Your task to perform on an android device: toggle priority inbox in the gmail app Image 0: 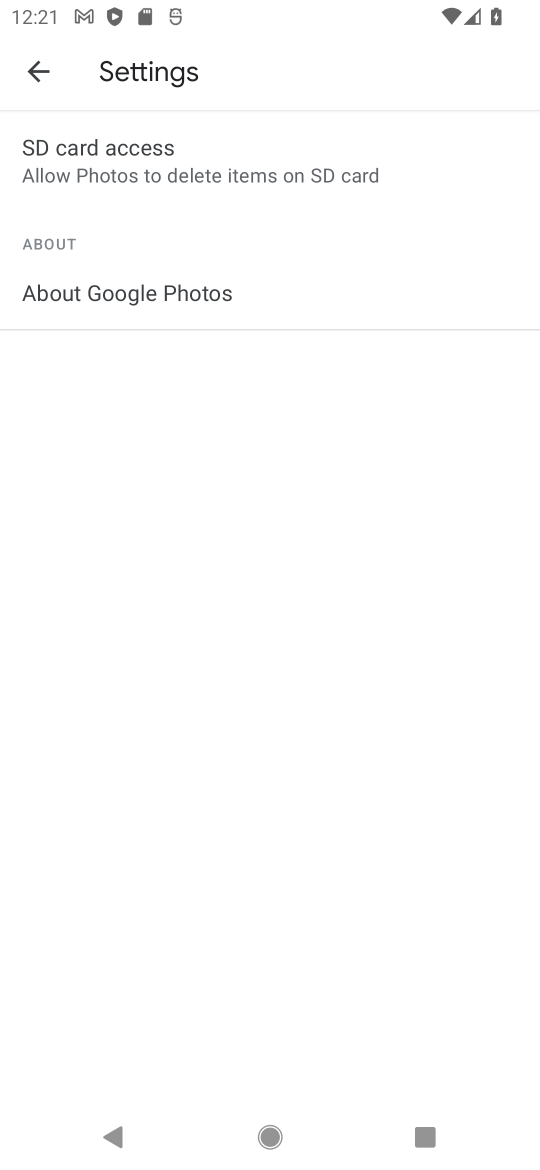
Step 0: press home button
Your task to perform on an android device: toggle priority inbox in the gmail app Image 1: 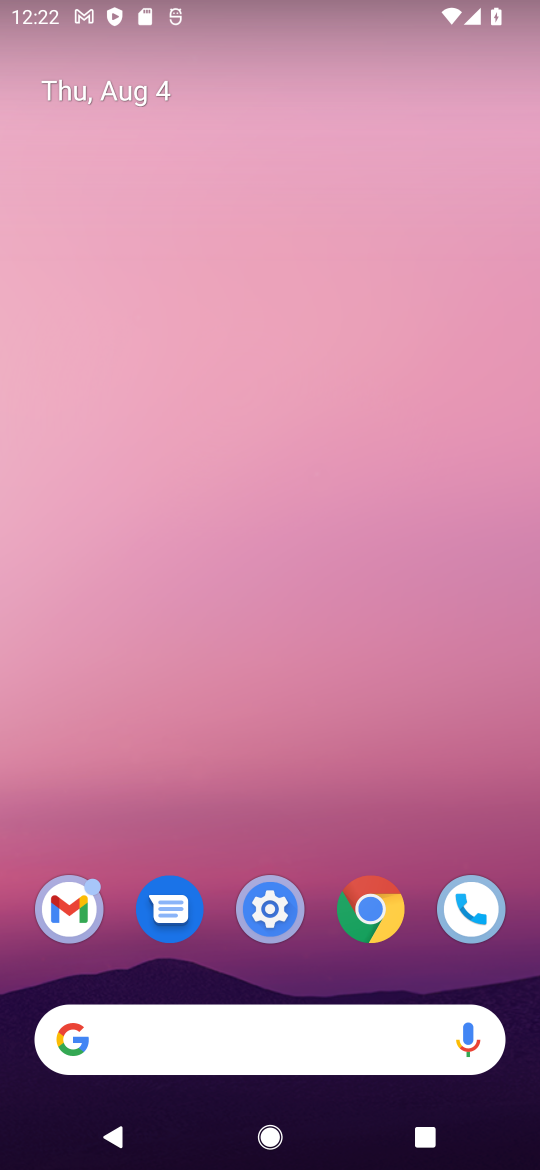
Step 1: click (82, 899)
Your task to perform on an android device: toggle priority inbox in the gmail app Image 2: 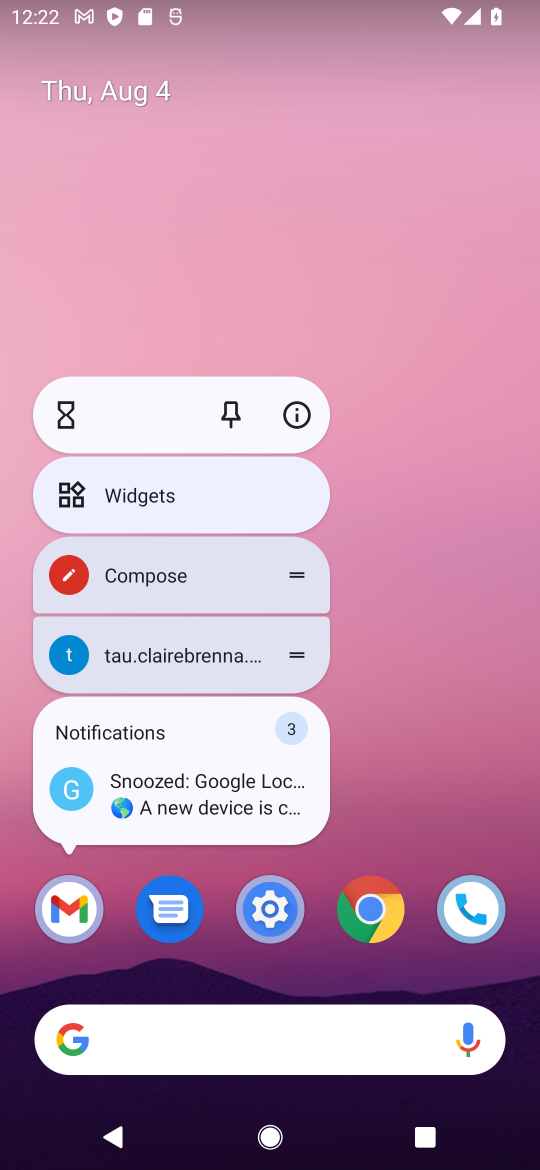
Step 2: click (82, 907)
Your task to perform on an android device: toggle priority inbox in the gmail app Image 3: 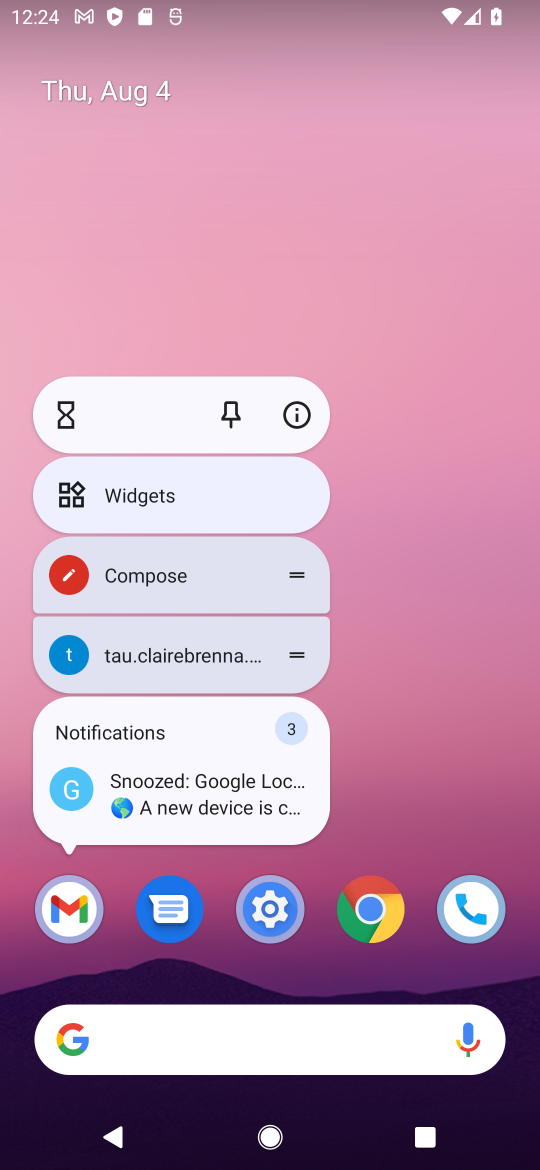
Step 3: click (82, 914)
Your task to perform on an android device: toggle priority inbox in the gmail app Image 4: 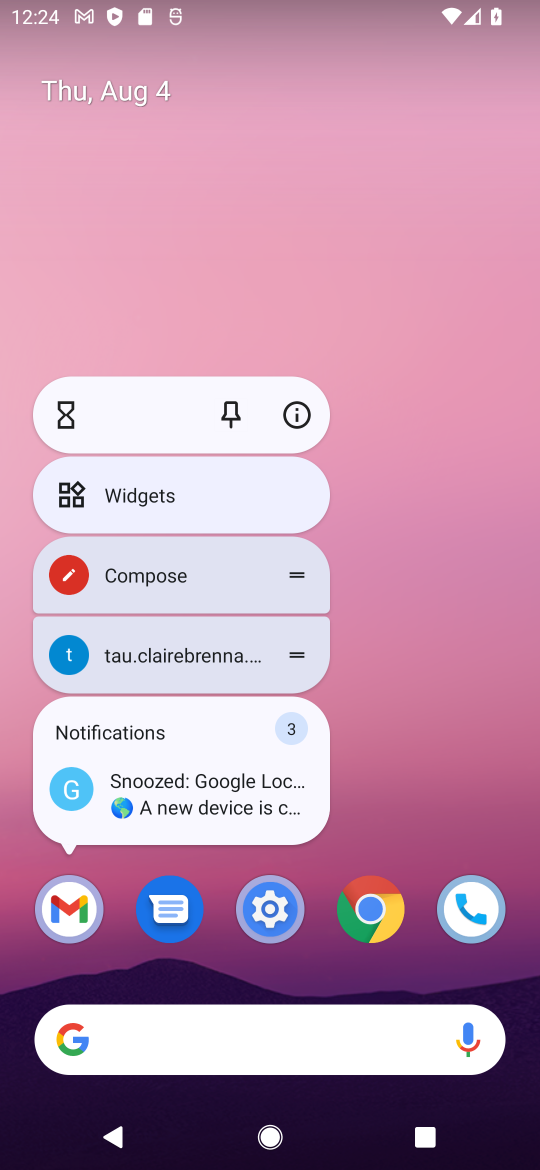
Step 4: click (82, 914)
Your task to perform on an android device: toggle priority inbox in the gmail app Image 5: 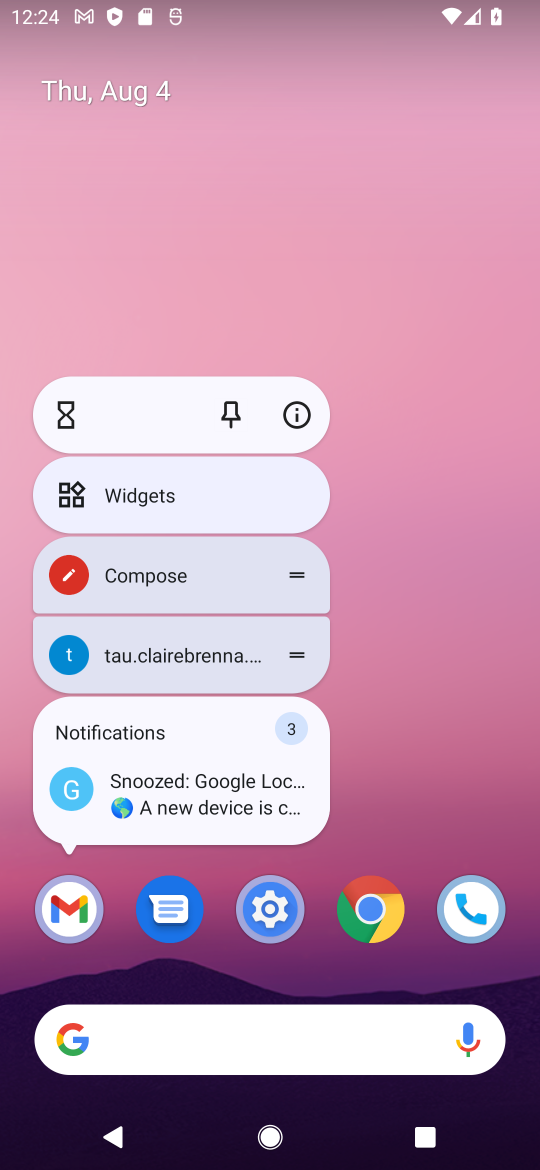
Step 5: click (82, 914)
Your task to perform on an android device: toggle priority inbox in the gmail app Image 6: 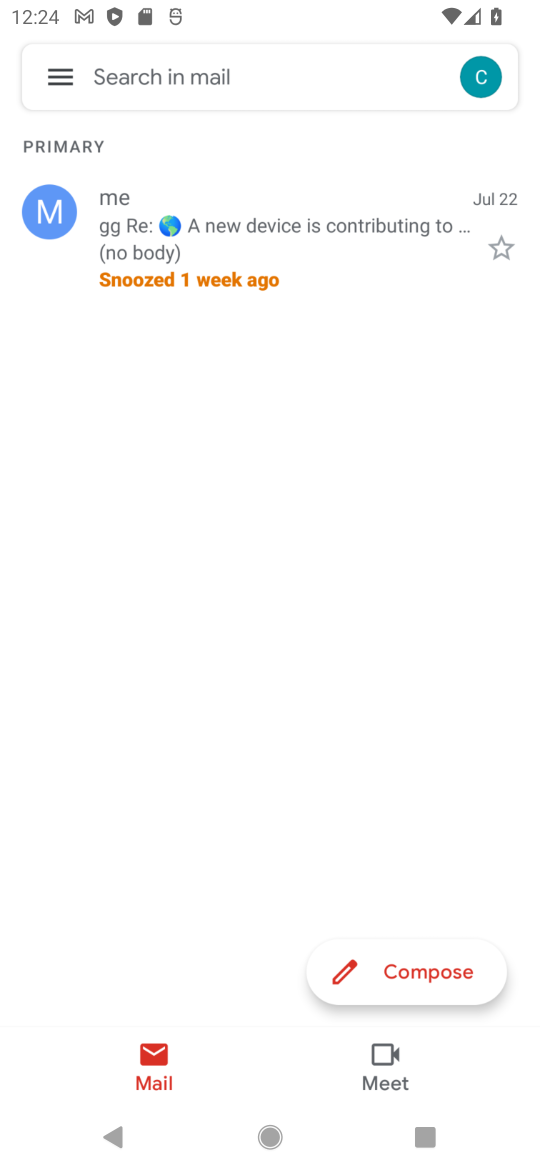
Step 6: click (82, 914)
Your task to perform on an android device: toggle priority inbox in the gmail app Image 7: 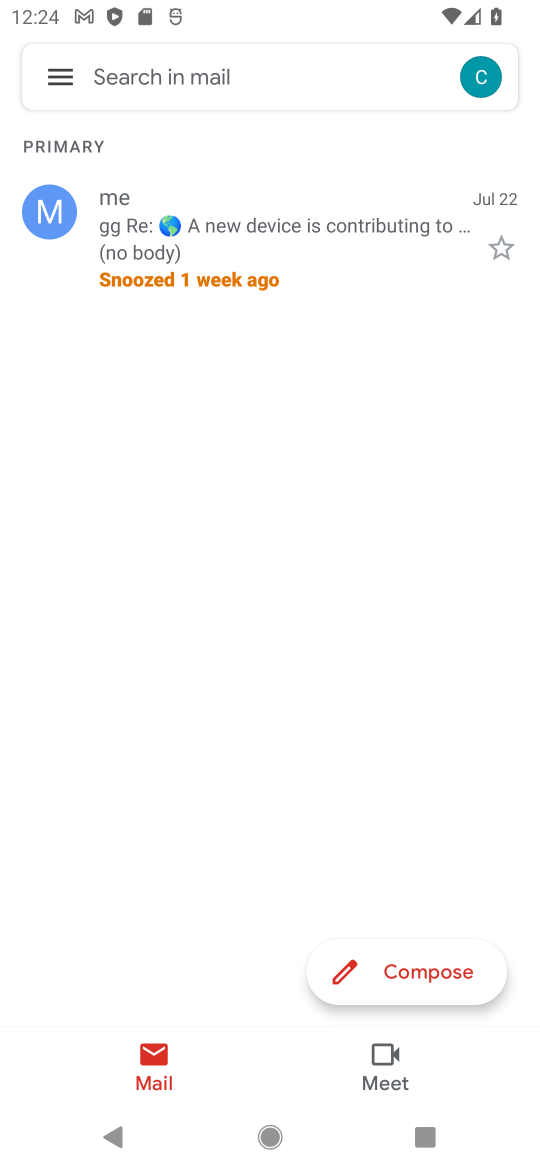
Step 7: click (65, 79)
Your task to perform on an android device: toggle priority inbox in the gmail app Image 8: 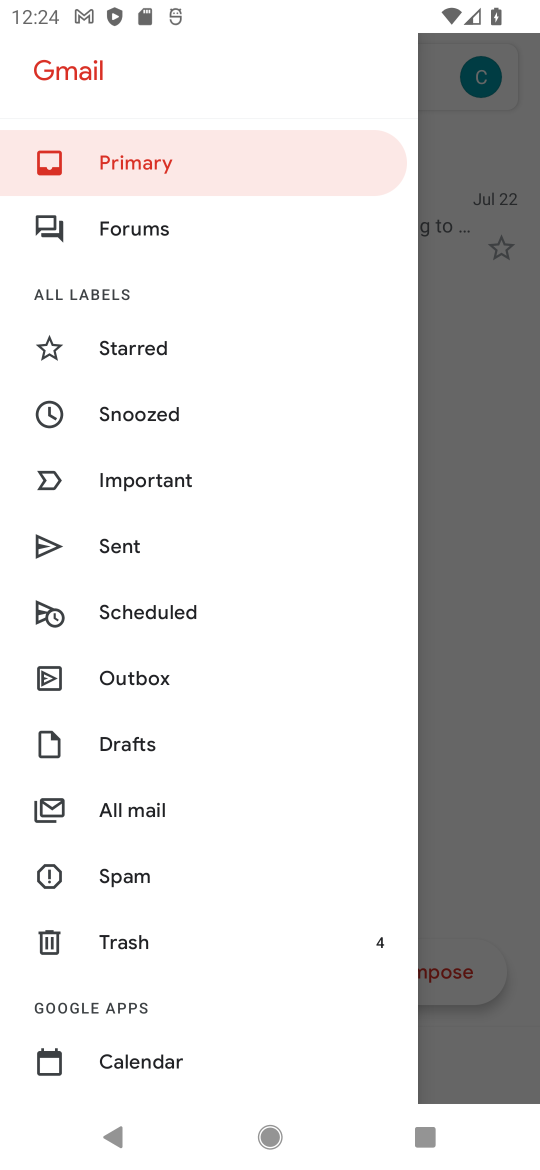
Step 8: drag from (258, 434) to (343, 0)
Your task to perform on an android device: toggle priority inbox in the gmail app Image 9: 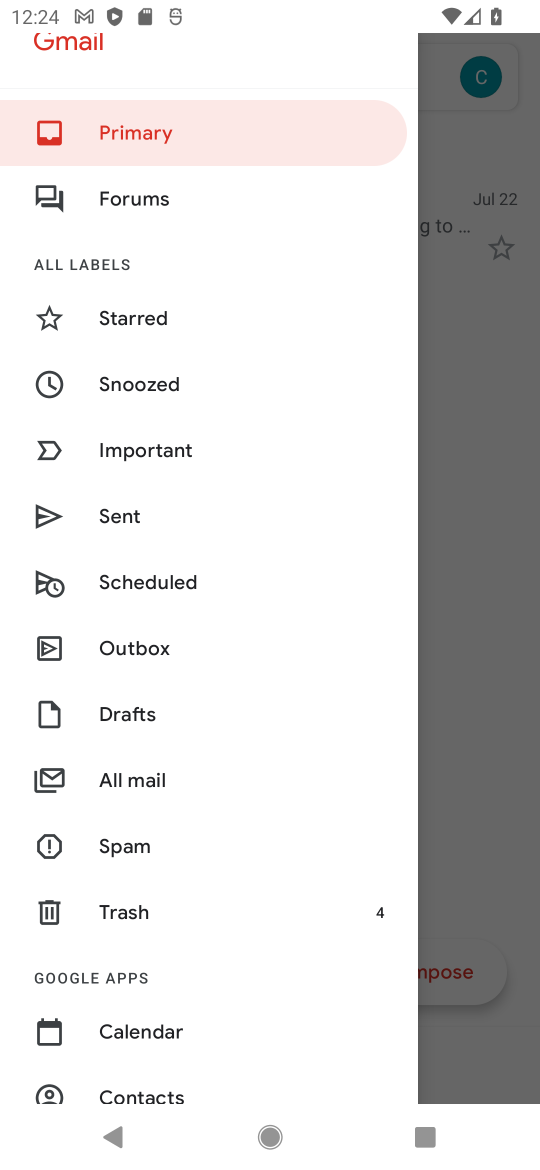
Step 9: drag from (246, 1058) to (215, 111)
Your task to perform on an android device: toggle priority inbox in the gmail app Image 10: 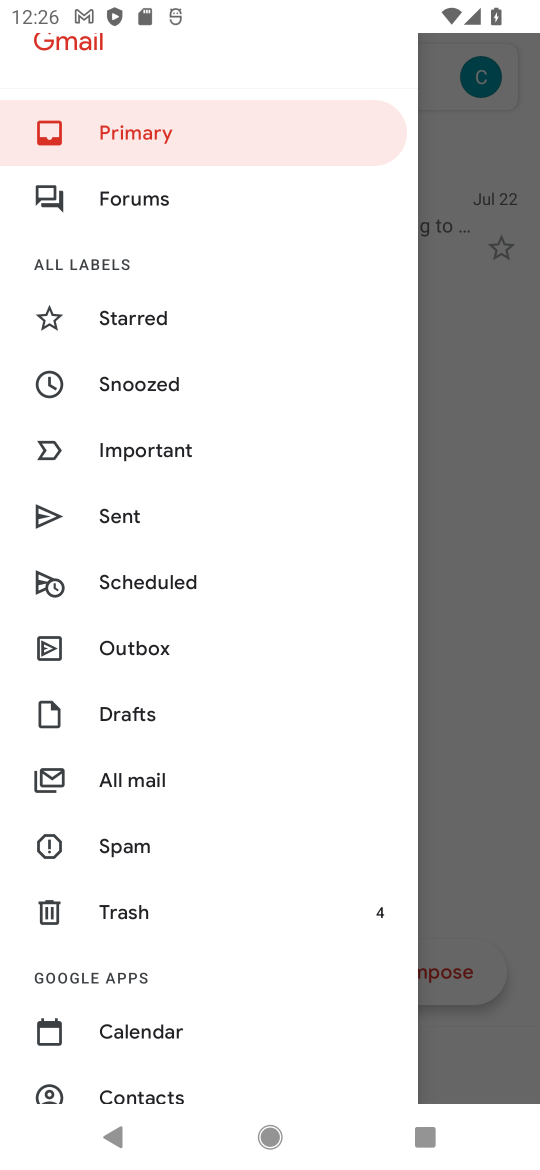
Step 10: drag from (142, 898) to (539, 427)
Your task to perform on an android device: toggle priority inbox in the gmail app Image 11: 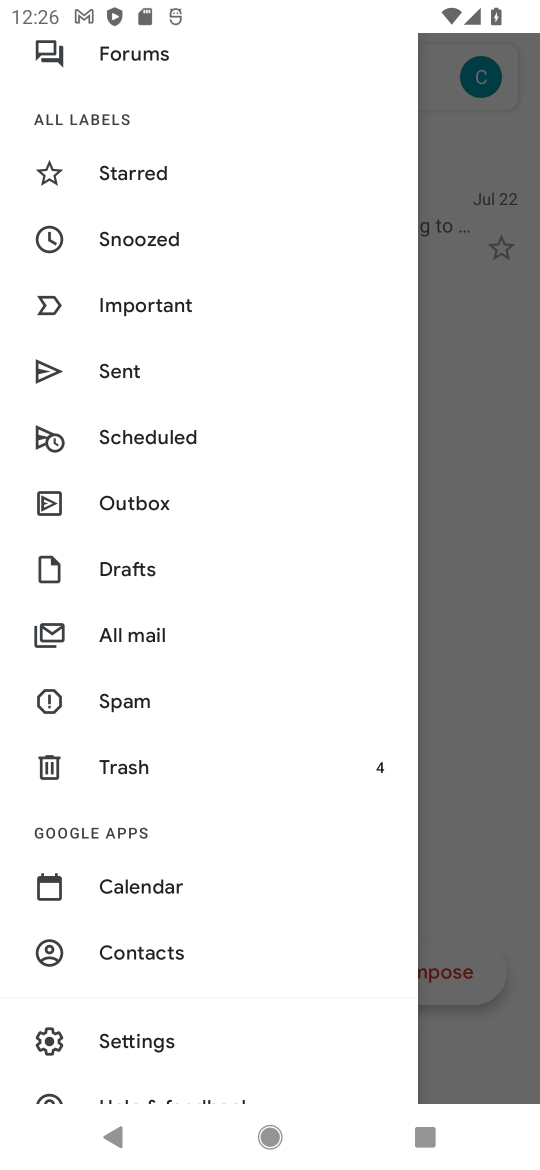
Step 11: click (174, 1000)
Your task to perform on an android device: toggle priority inbox in the gmail app Image 12: 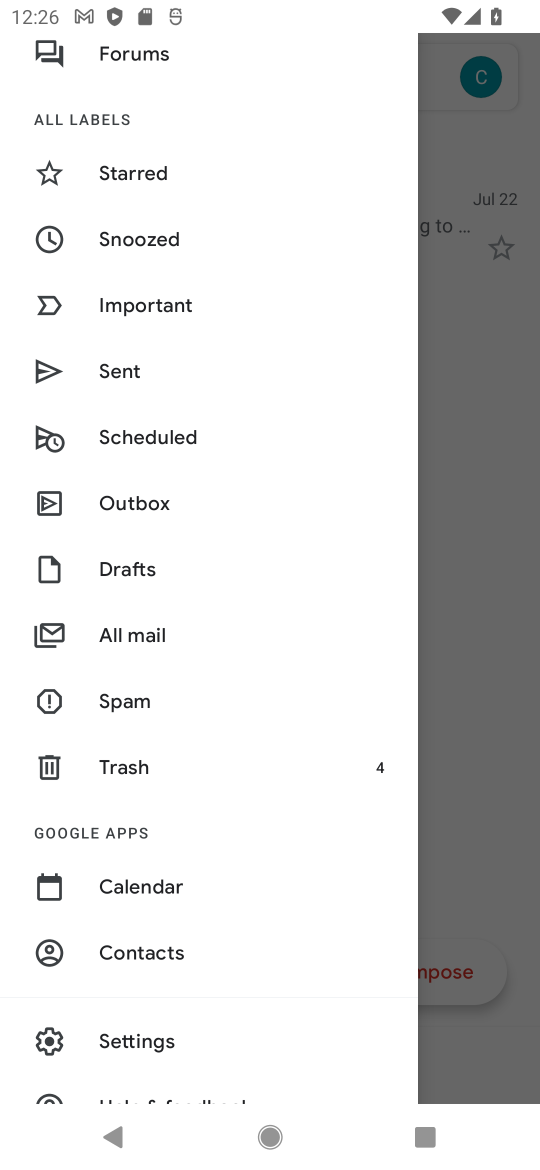
Step 12: click (174, 1043)
Your task to perform on an android device: toggle priority inbox in the gmail app Image 13: 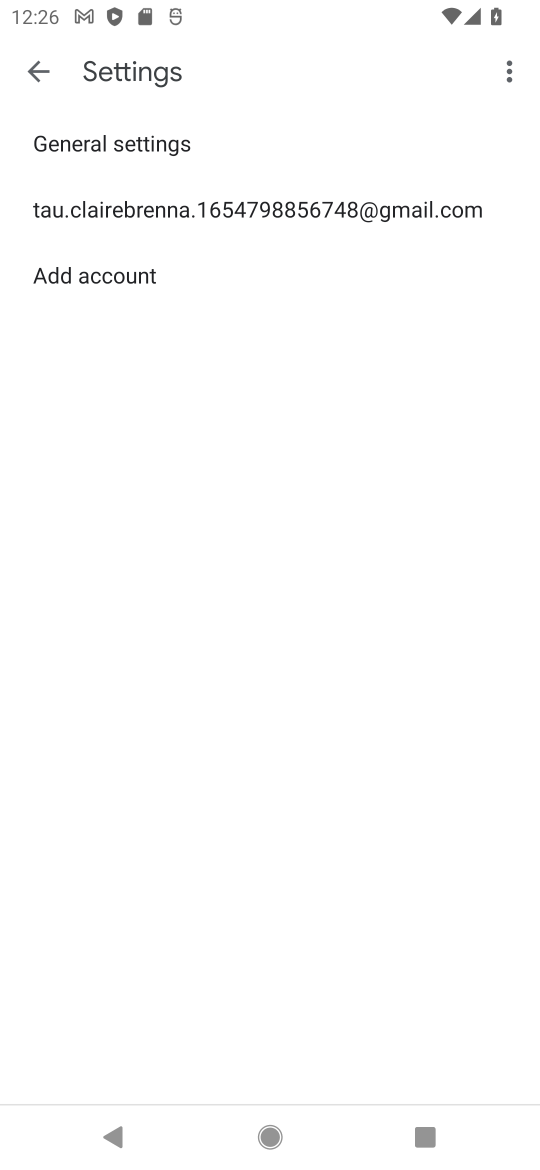
Step 13: click (155, 198)
Your task to perform on an android device: toggle priority inbox in the gmail app Image 14: 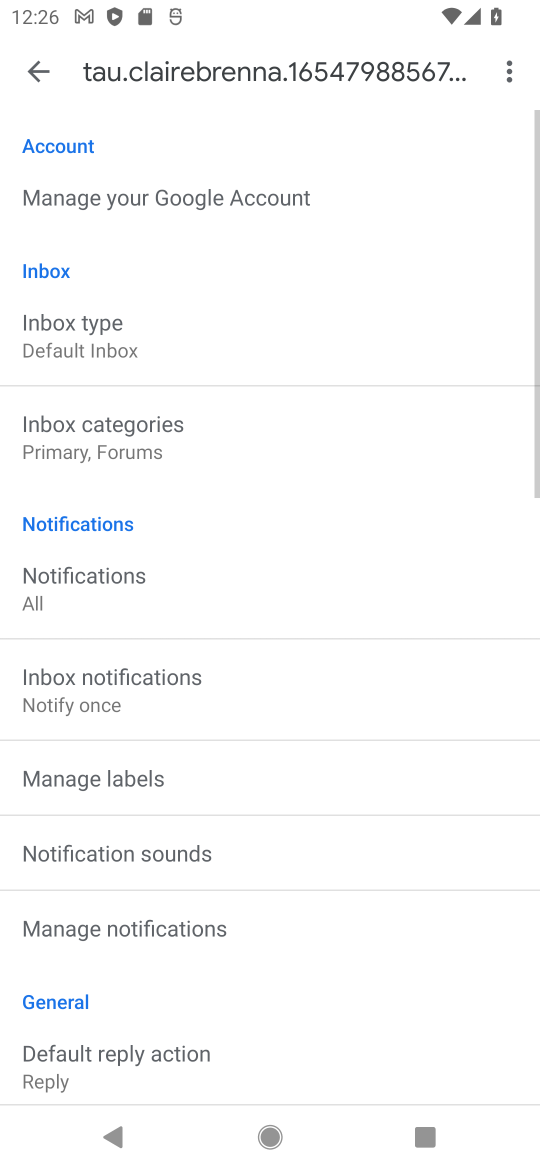
Step 14: click (115, 328)
Your task to perform on an android device: toggle priority inbox in the gmail app Image 15: 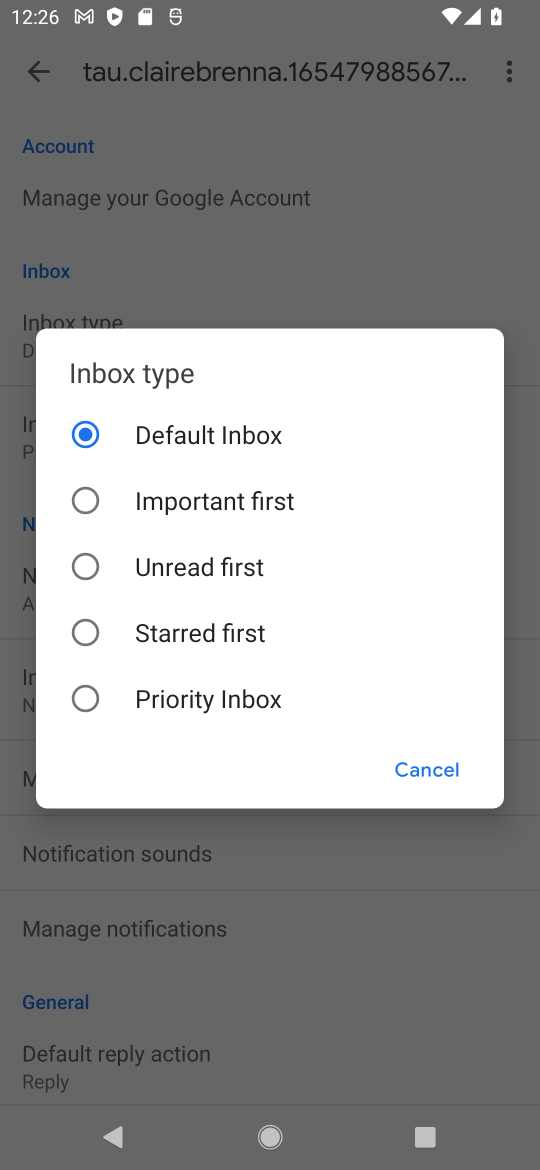
Step 15: click (299, 688)
Your task to perform on an android device: toggle priority inbox in the gmail app Image 16: 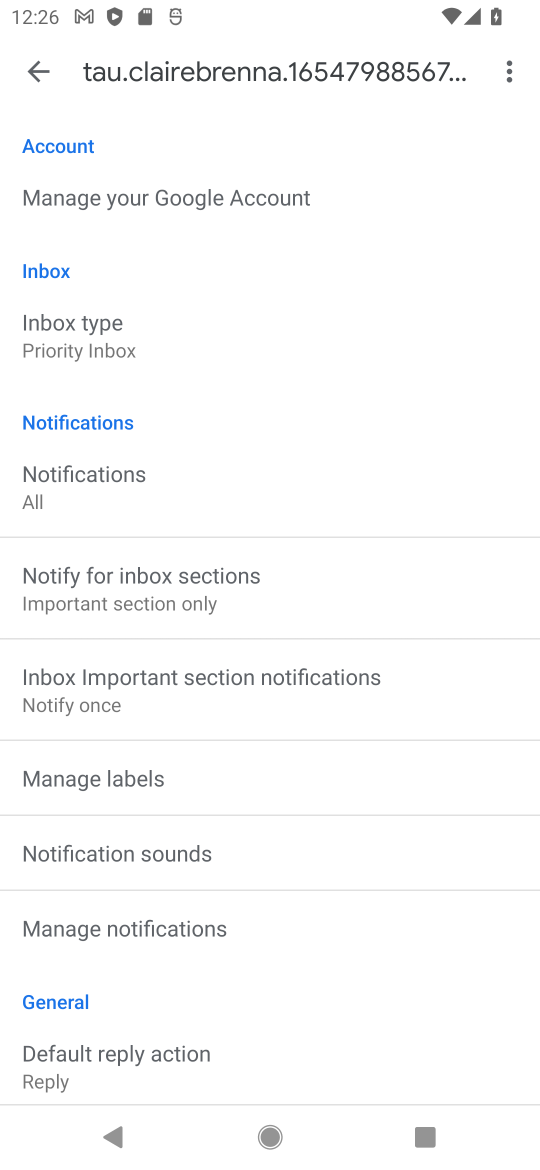
Step 16: task complete